Your task to perform on an android device: Open Google Maps Image 0: 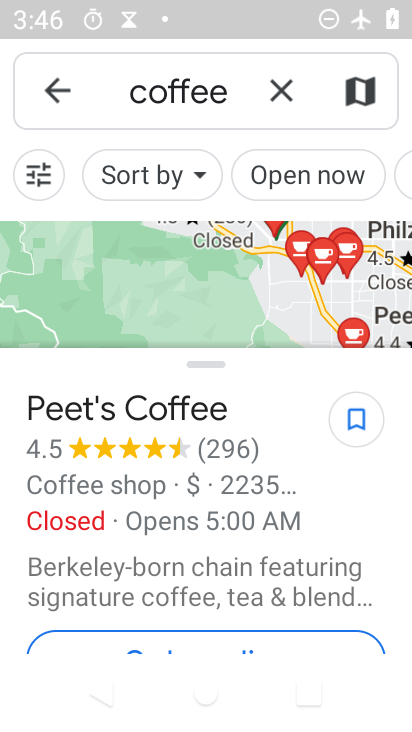
Step 0: drag from (239, 590) to (180, 193)
Your task to perform on an android device: Open Google Maps Image 1: 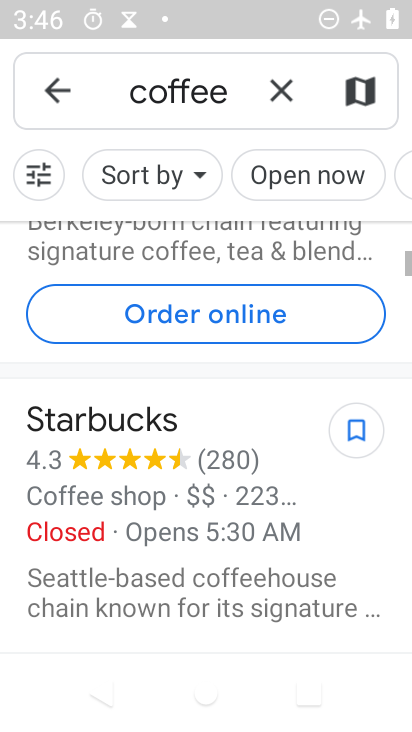
Step 1: task complete